Your task to perform on an android device: turn off data saver in the chrome app Image 0: 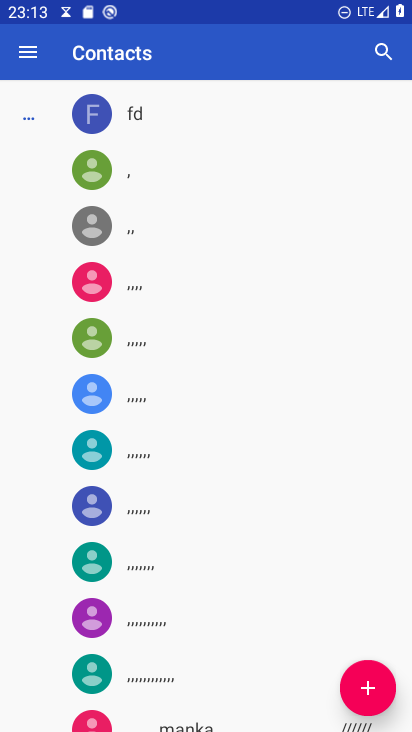
Step 0: press home button
Your task to perform on an android device: turn off data saver in the chrome app Image 1: 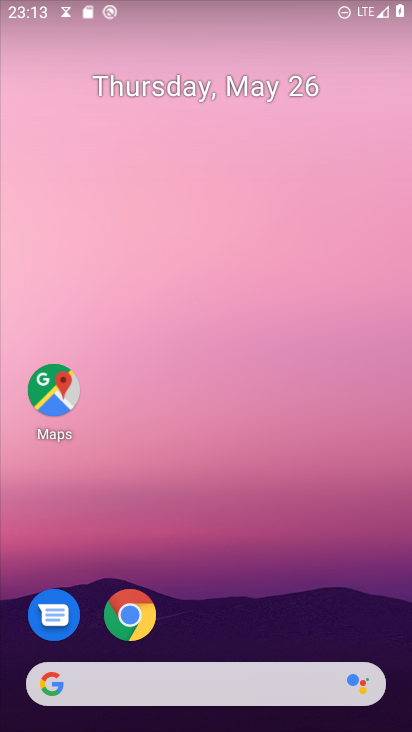
Step 1: drag from (230, 531) to (230, 127)
Your task to perform on an android device: turn off data saver in the chrome app Image 2: 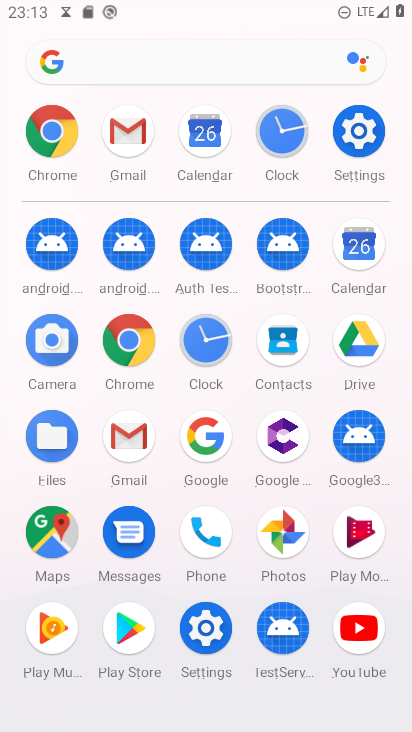
Step 2: click (135, 330)
Your task to perform on an android device: turn off data saver in the chrome app Image 3: 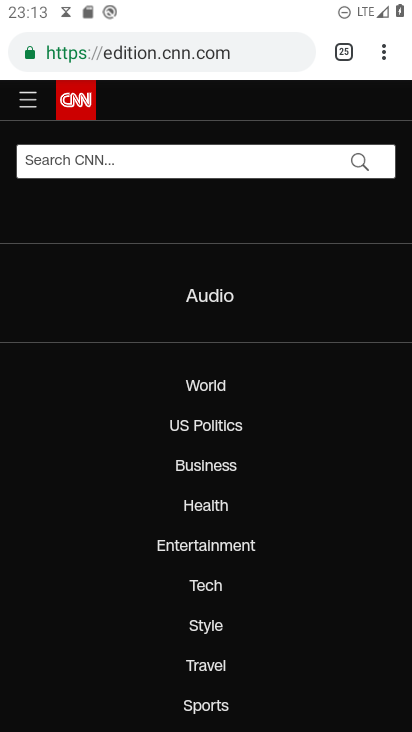
Step 3: click (380, 33)
Your task to perform on an android device: turn off data saver in the chrome app Image 4: 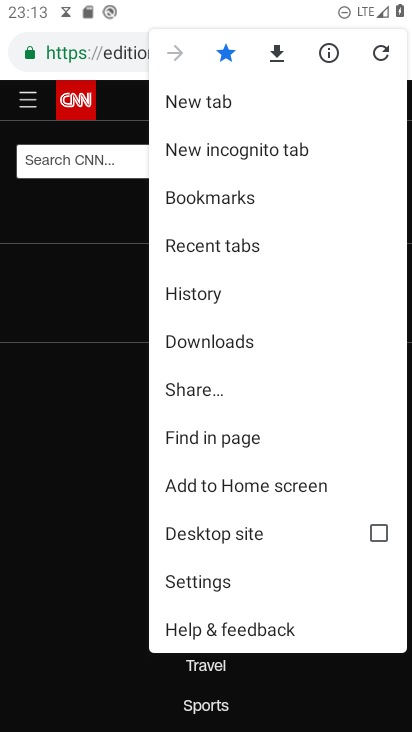
Step 4: click (221, 582)
Your task to perform on an android device: turn off data saver in the chrome app Image 5: 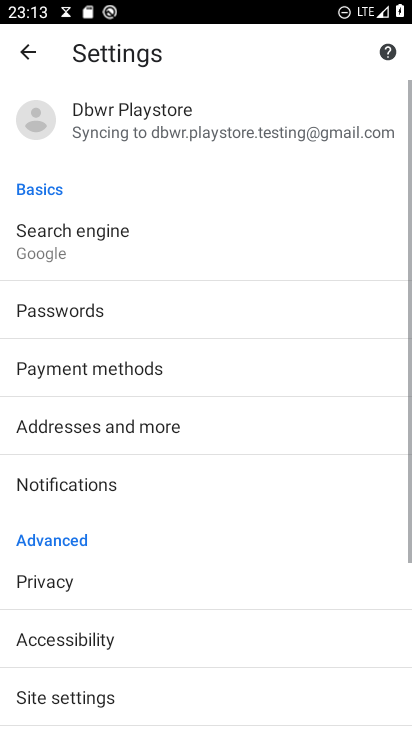
Step 5: drag from (160, 600) to (168, 288)
Your task to perform on an android device: turn off data saver in the chrome app Image 6: 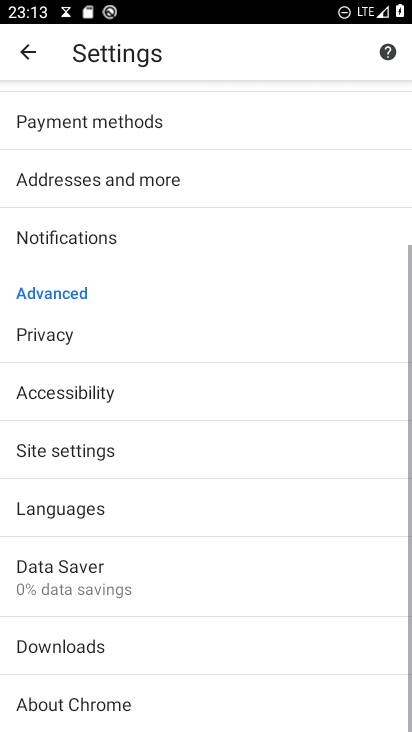
Step 6: click (127, 560)
Your task to perform on an android device: turn off data saver in the chrome app Image 7: 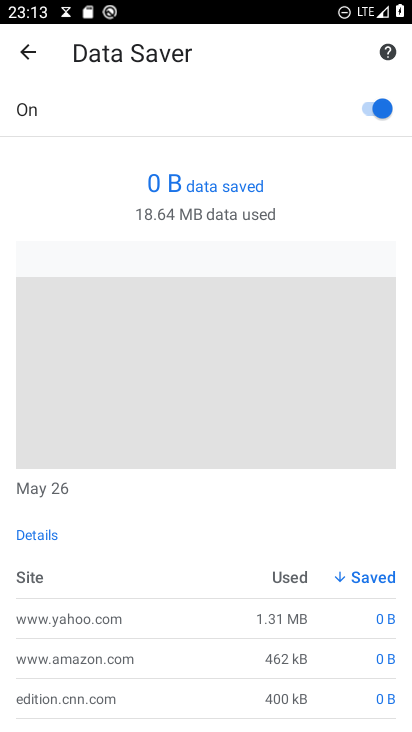
Step 7: click (363, 103)
Your task to perform on an android device: turn off data saver in the chrome app Image 8: 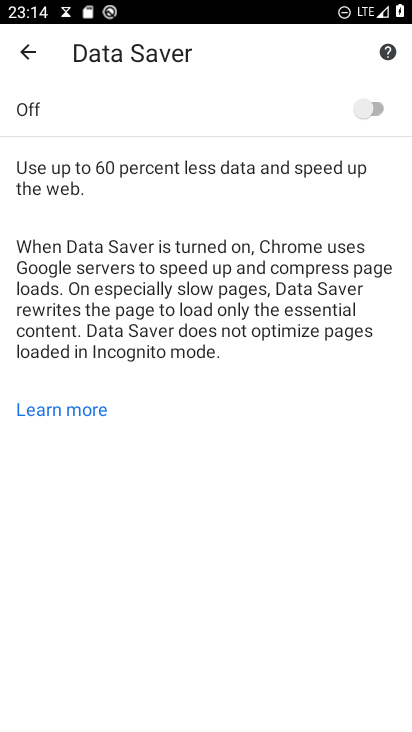
Step 8: task complete